Your task to perform on an android device: choose inbox layout in the gmail app Image 0: 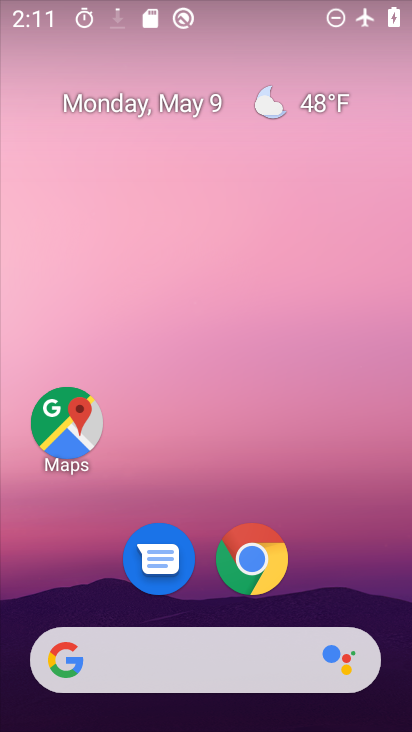
Step 0: drag from (209, 607) to (316, 107)
Your task to perform on an android device: choose inbox layout in the gmail app Image 1: 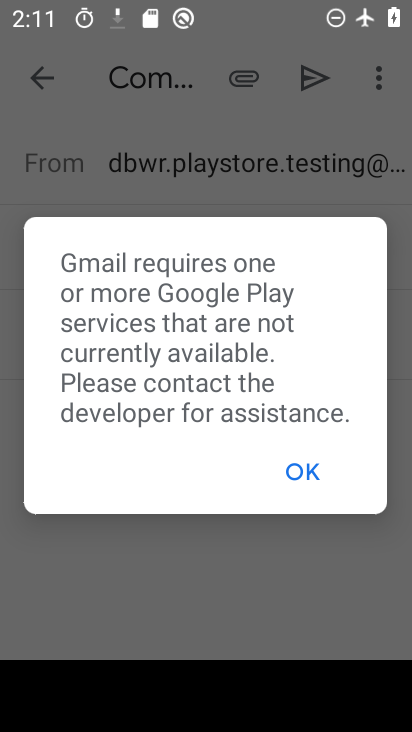
Step 1: press home button
Your task to perform on an android device: choose inbox layout in the gmail app Image 2: 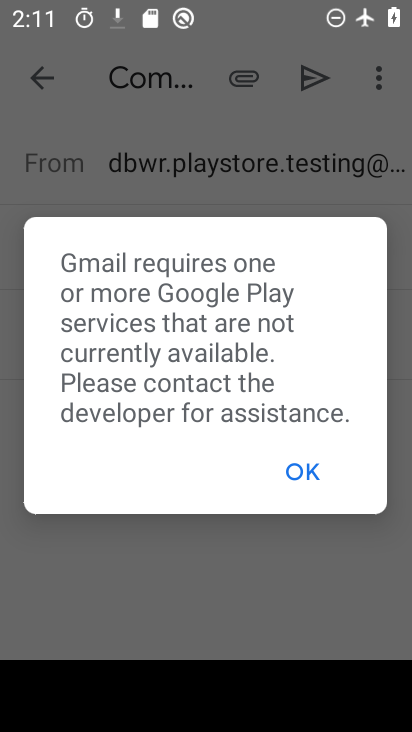
Step 2: drag from (96, 552) to (280, 90)
Your task to perform on an android device: choose inbox layout in the gmail app Image 3: 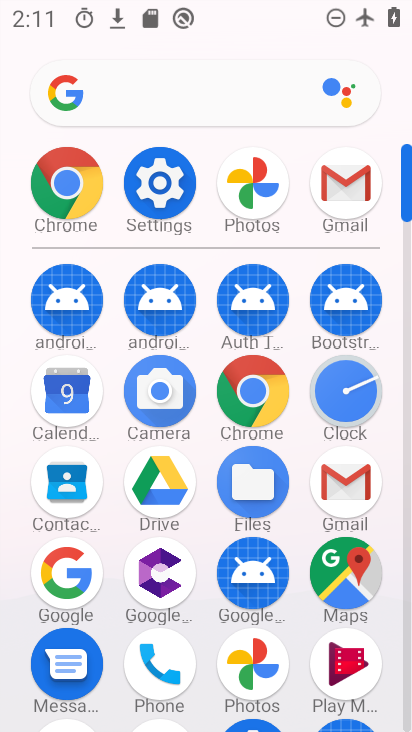
Step 3: click (338, 492)
Your task to perform on an android device: choose inbox layout in the gmail app Image 4: 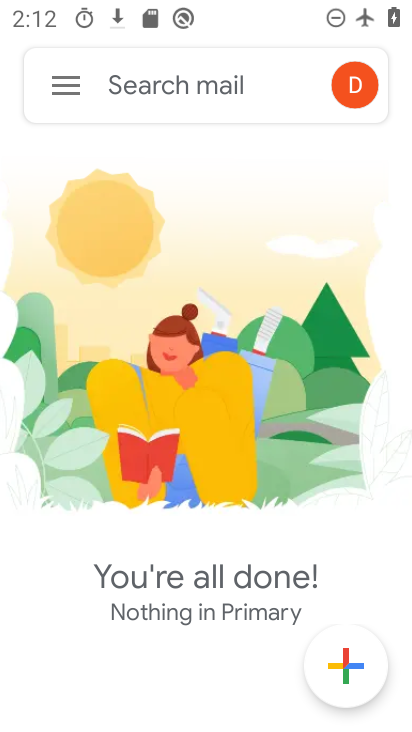
Step 4: drag from (195, 632) to (203, 506)
Your task to perform on an android device: choose inbox layout in the gmail app Image 5: 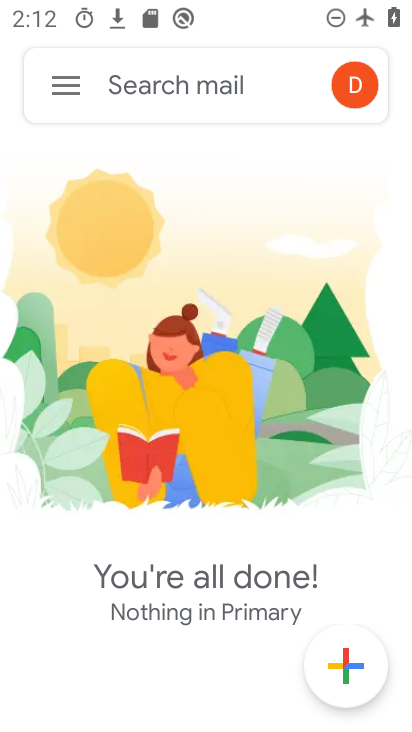
Step 5: click (35, 85)
Your task to perform on an android device: choose inbox layout in the gmail app Image 6: 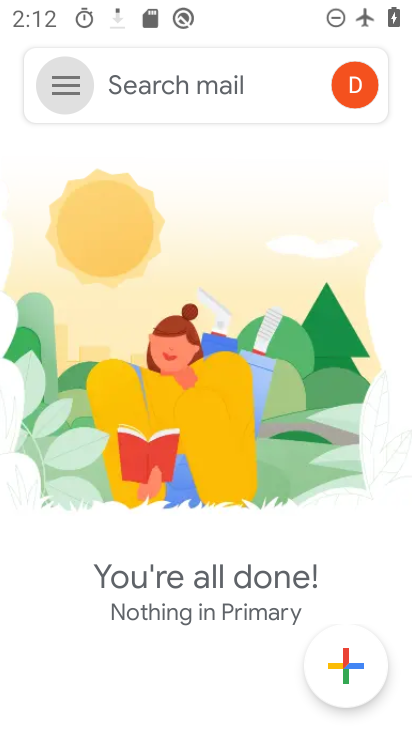
Step 6: click (48, 85)
Your task to perform on an android device: choose inbox layout in the gmail app Image 7: 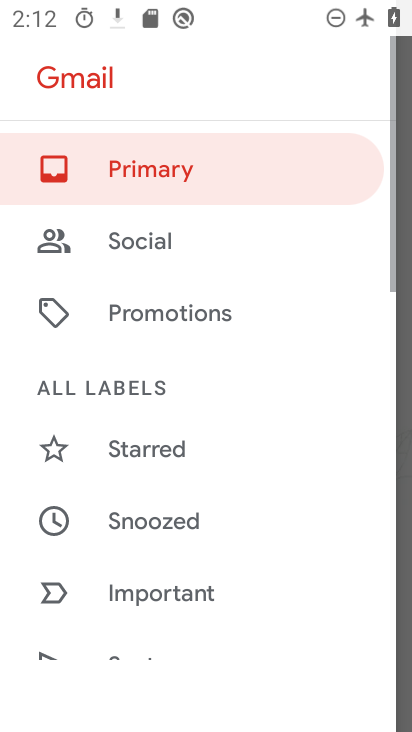
Step 7: drag from (163, 580) to (191, 226)
Your task to perform on an android device: choose inbox layout in the gmail app Image 8: 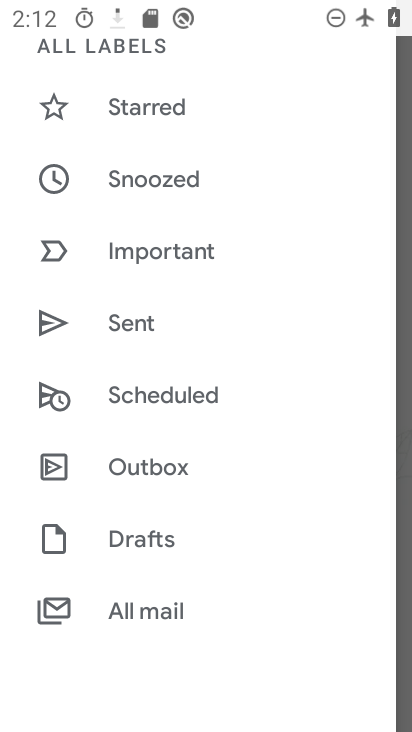
Step 8: drag from (174, 641) to (312, 137)
Your task to perform on an android device: choose inbox layout in the gmail app Image 9: 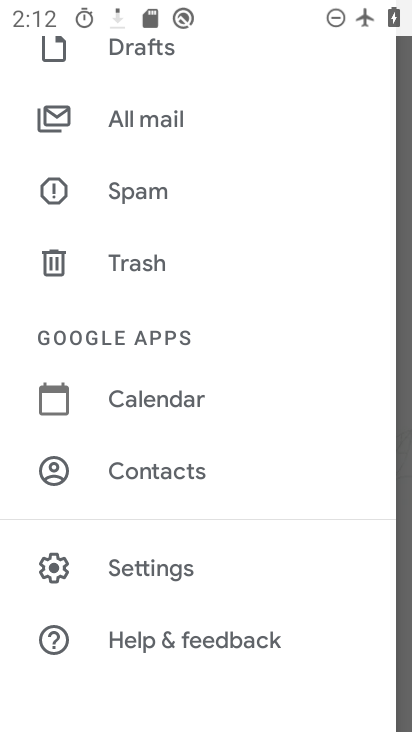
Step 9: drag from (243, 291) to (261, 715)
Your task to perform on an android device: choose inbox layout in the gmail app Image 10: 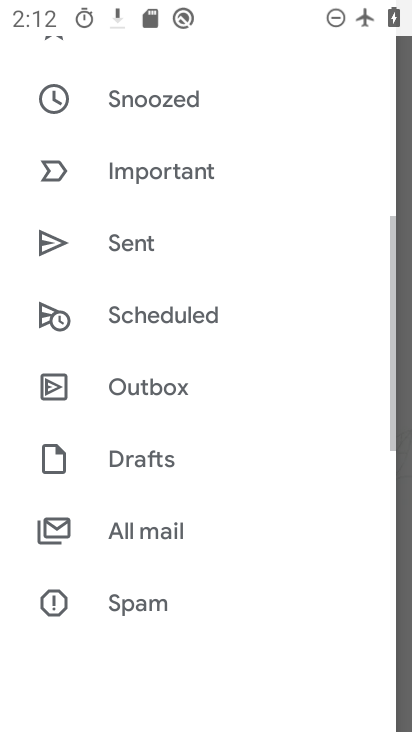
Step 10: drag from (232, 240) to (243, 625)
Your task to perform on an android device: choose inbox layout in the gmail app Image 11: 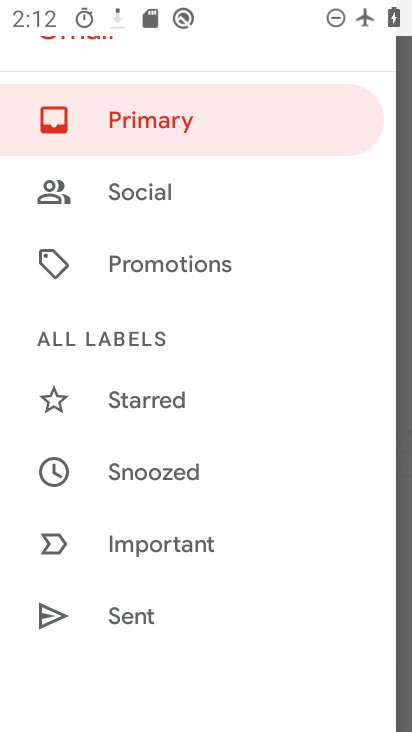
Step 11: drag from (236, 180) to (235, 541)
Your task to perform on an android device: choose inbox layout in the gmail app Image 12: 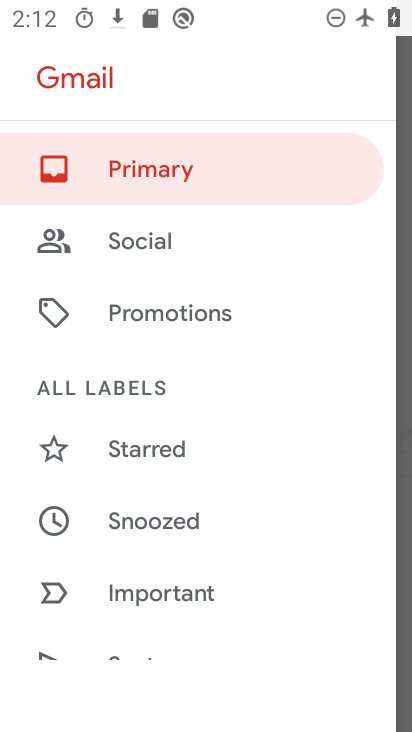
Step 12: click (148, 141)
Your task to perform on an android device: choose inbox layout in the gmail app Image 13: 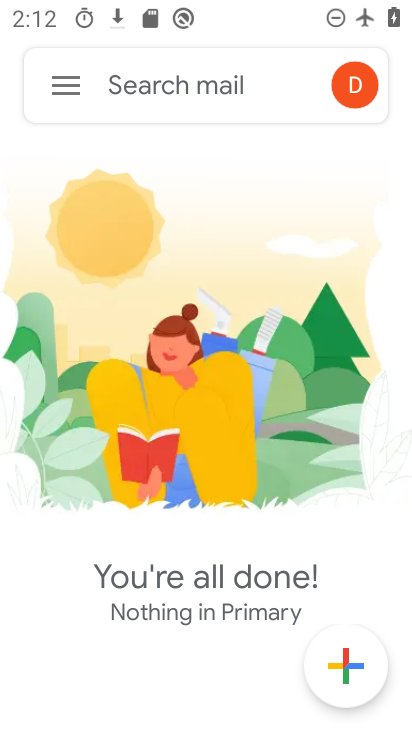
Step 13: task complete